Your task to perform on an android device: Search for Mexican restaurants on Maps Image 0: 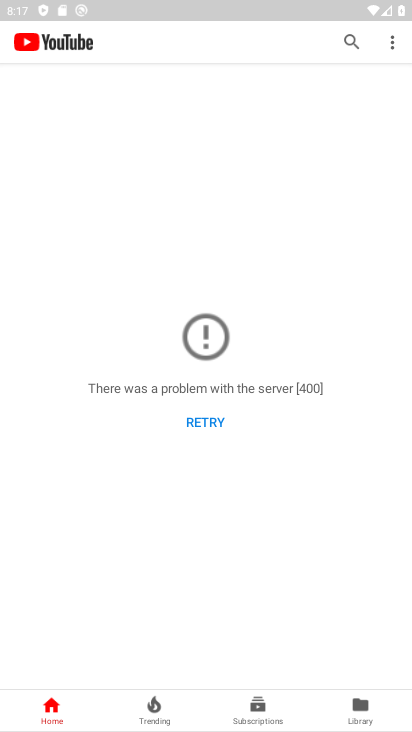
Step 0: press home button
Your task to perform on an android device: Search for Mexican restaurants on Maps Image 1: 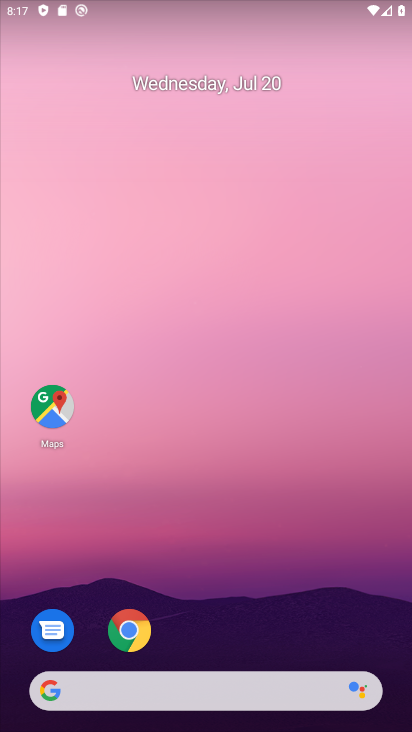
Step 1: click (58, 405)
Your task to perform on an android device: Search for Mexican restaurants on Maps Image 2: 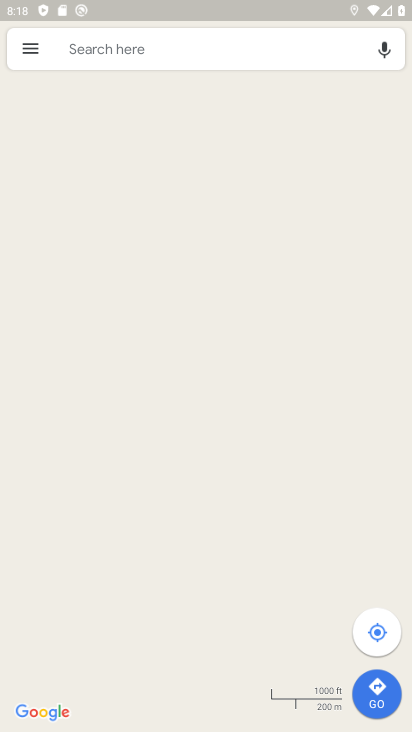
Step 2: click (116, 50)
Your task to perform on an android device: Search for Mexican restaurants on Maps Image 3: 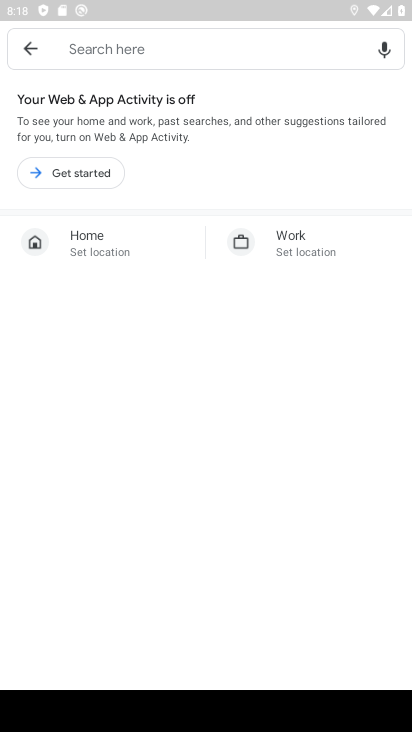
Step 3: type "Mexican restaurants"
Your task to perform on an android device: Search for Mexican restaurants on Maps Image 4: 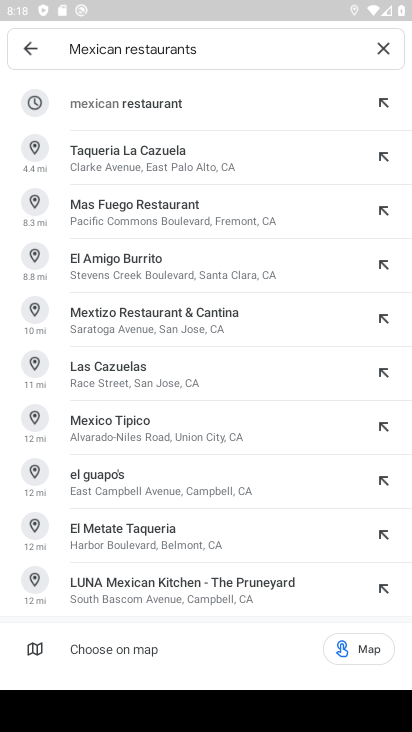
Step 4: click (149, 108)
Your task to perform on an android device: Search for Mexican restaurants on Maps Image 5: 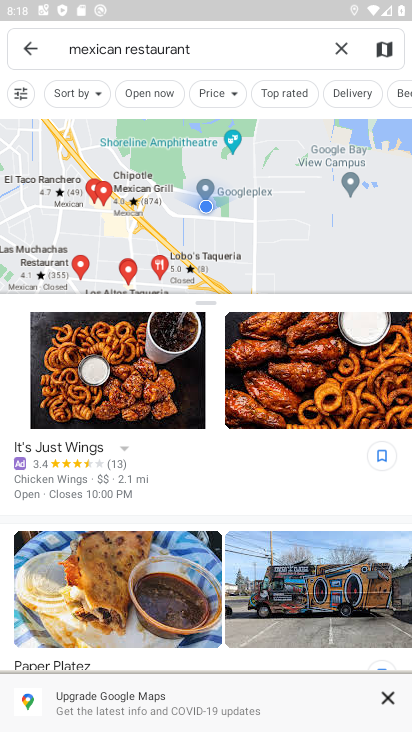
Step 5: task complete